Your task to perform on an android device: Open the phone app and click the voicemail tab. Image 0: 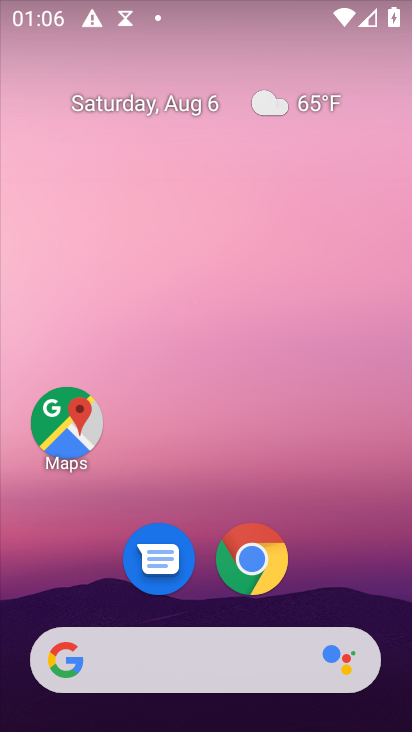
Step 0: drag from (356, 596) to (247, 215)
Your task to perform on an android device: Open the phone app and click the voicemail tab. Image 1: 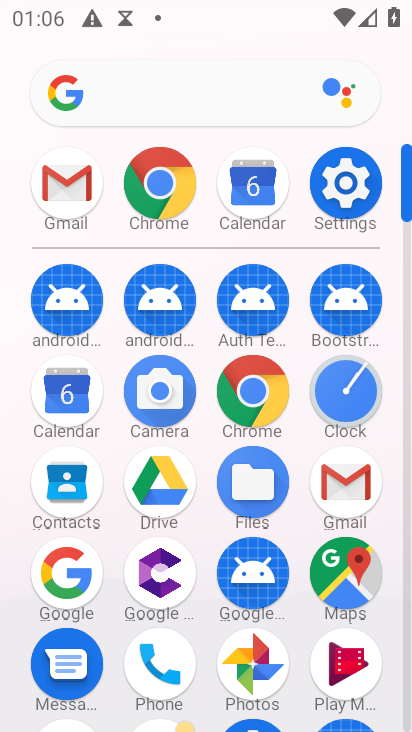
Step 1: click (162, 662)
Your task to perform on an android device: Open the phone app and click the voicemail tab. Image 2: 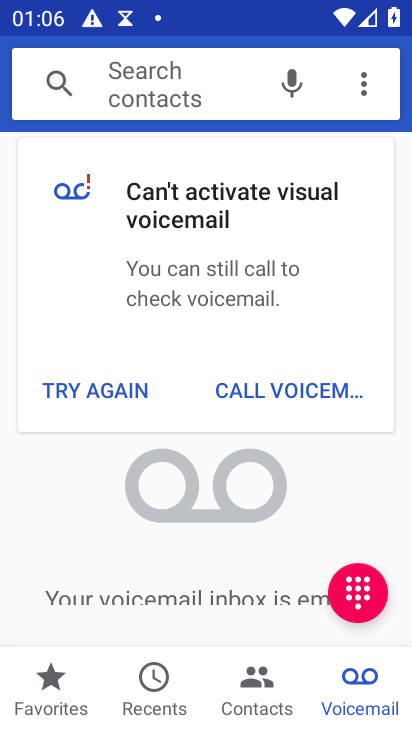
Step 2: task complete